Your task to perform on an android device: change notifications settings Image 0: 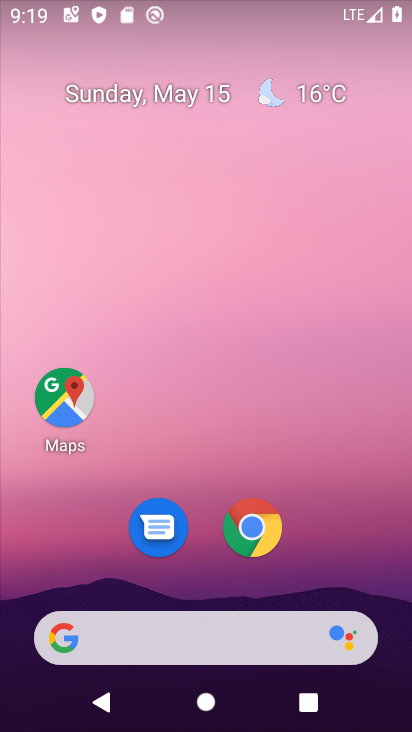
Step 0: drag from (373, 580) to (376, 3)
Your task to perform on an android device: change notifications settings Image 1: 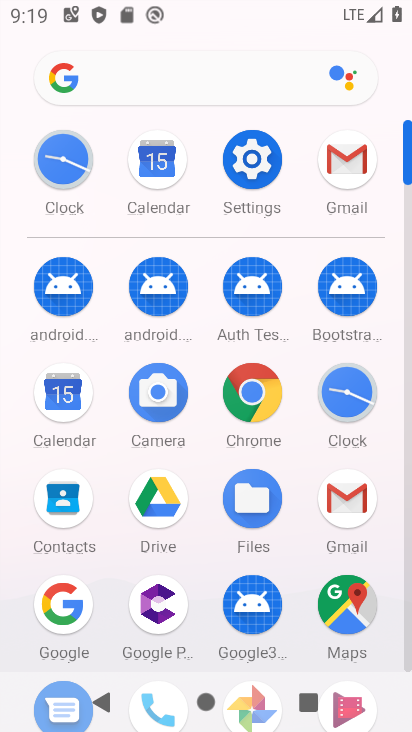
Step 1: click (251, 165)
Your task to perform on an android device: change notifications settings Image 2: 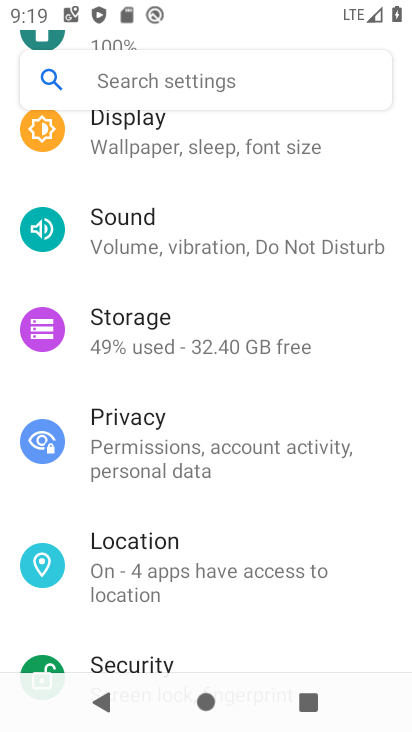
Step 2: drag from (374, 232) to (343, 547)
Your task to perform on an android device: change notifications settings Image 3: 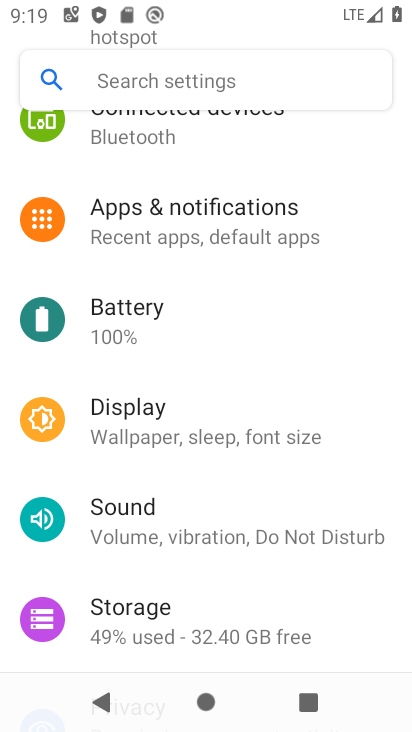
Step 3: drag from (377, 290) to (370, 596)
Your task to perform on an android device: change notifications settings Image 4: 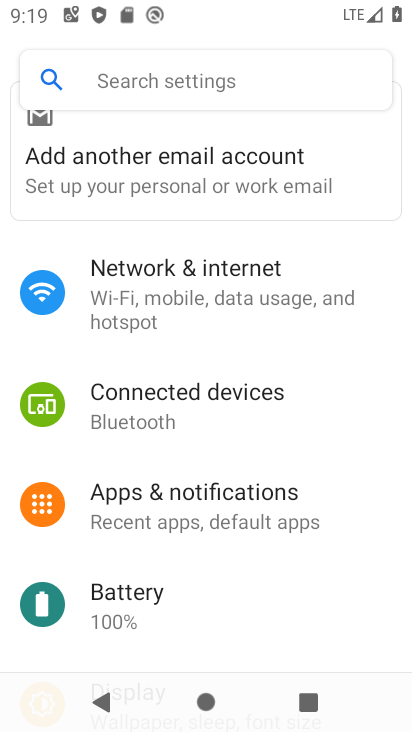
Step 4: drag from (369, 191) to (361, 229)
Your task to perform on an android device: change notifications settings Image 5: 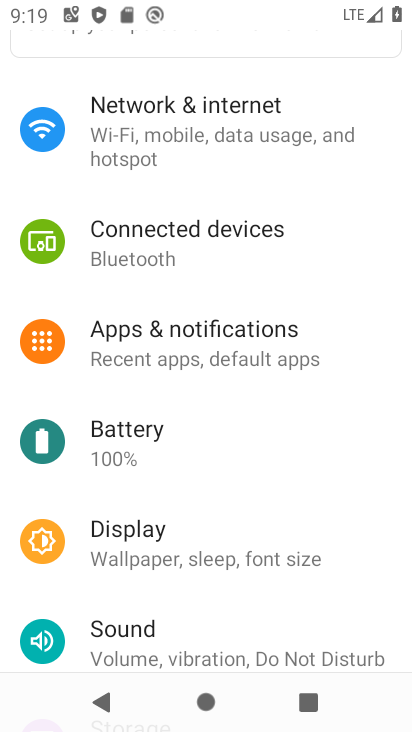
Step 5: click (232, 338)
Your task to perform on an android device: change notifications settings Image 6: 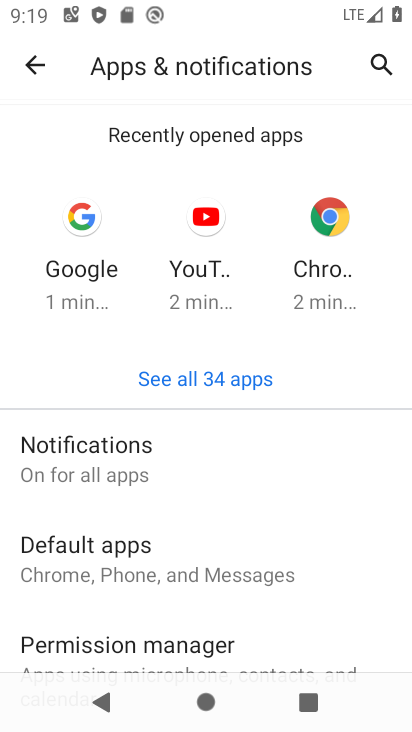
Step 6: click (97, 474)
Your task to perform on an android device: change notifications settings Image 7: 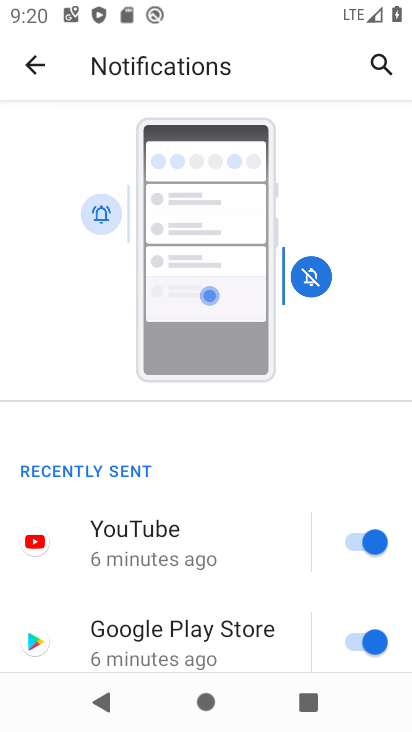
Step 7: drag from (194, 550) to (172, 123)
Your task to perform on an android device: change notifications settings Image 8: 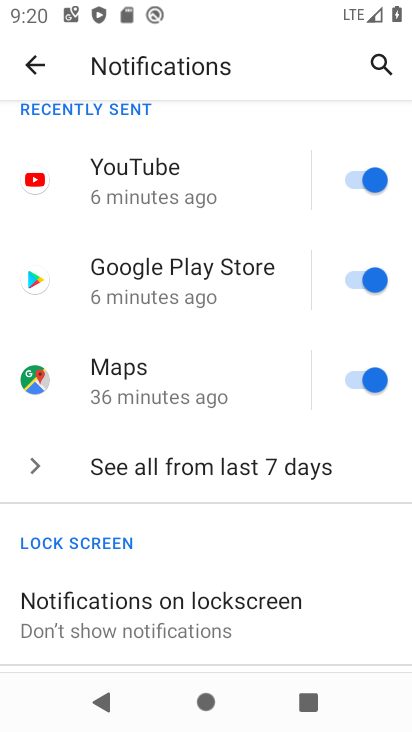
Step 8: drag from (180, 476) to (195, 115)
Your task to perform on an android device: change notifications settings Image 9: 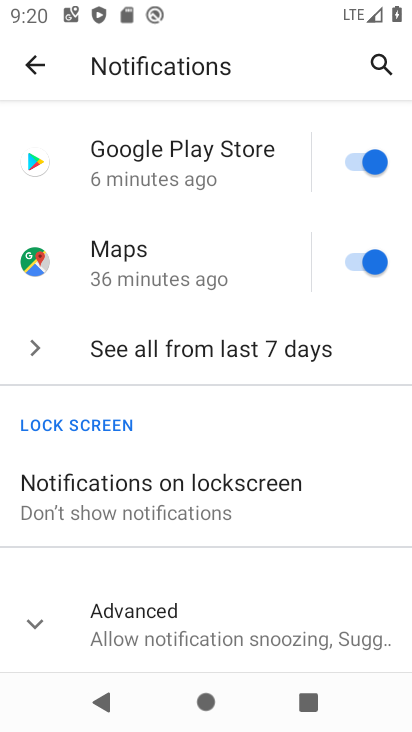
Step 9: click (182, 358)
Your task to perform on an android device: change notifications settings Image 10: 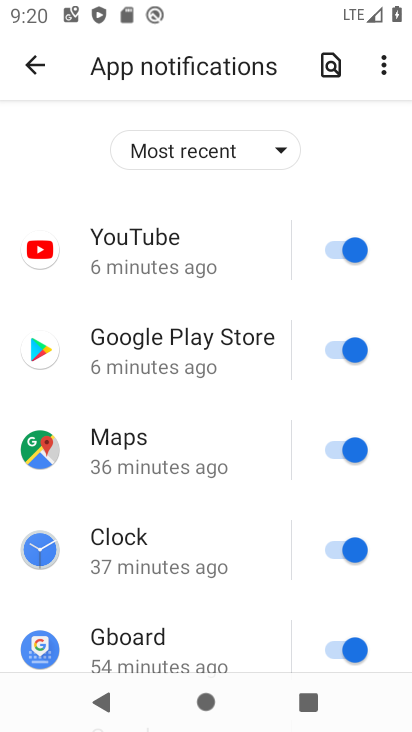
Step 10: click (274, 146)
Your task to perform on an android device: change notifications settings Image 11: 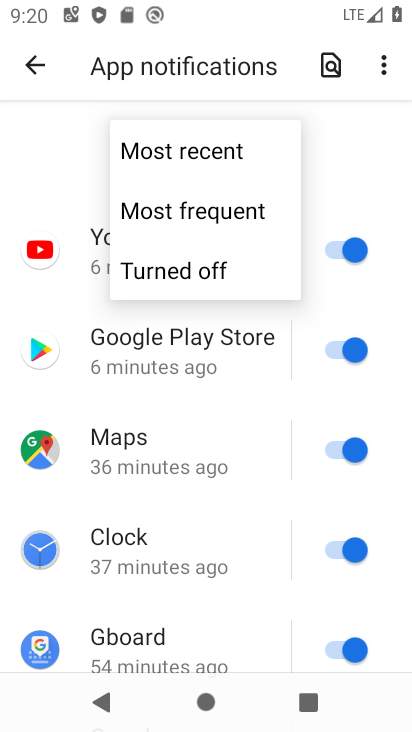
Step 11: click (211, 208)
Your task to perform on an android device: change notifications settings Image 12: 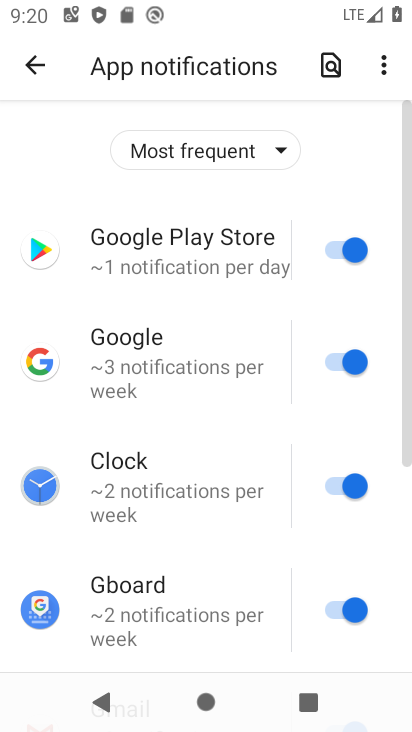
Step 12: task complete